Your task to perform on an android device: find photos in the google photos app Image 0: 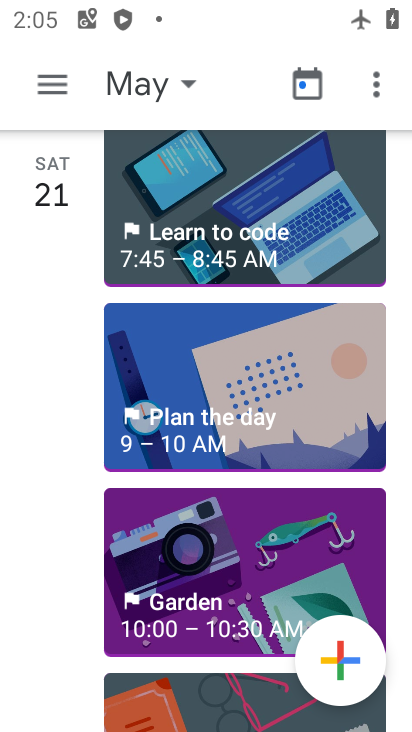
Step 0: press home button
Your task to perform on an android device: find photos in the google photos app Image 1: 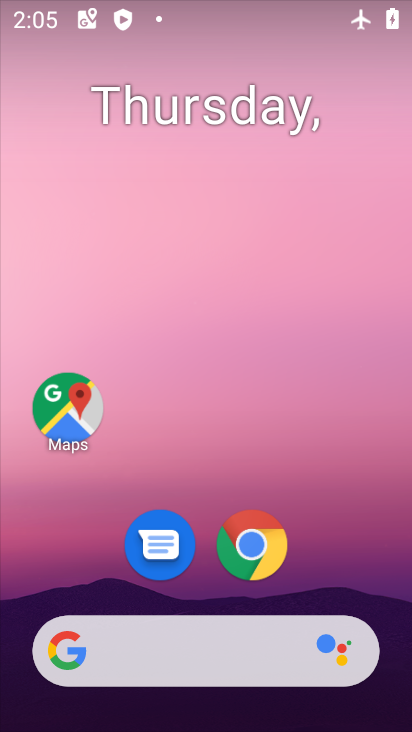
Step 1: drag from (94, 722) to (99, 153)
Your task to perform on an android device: find photos in the google photos app Image 2: 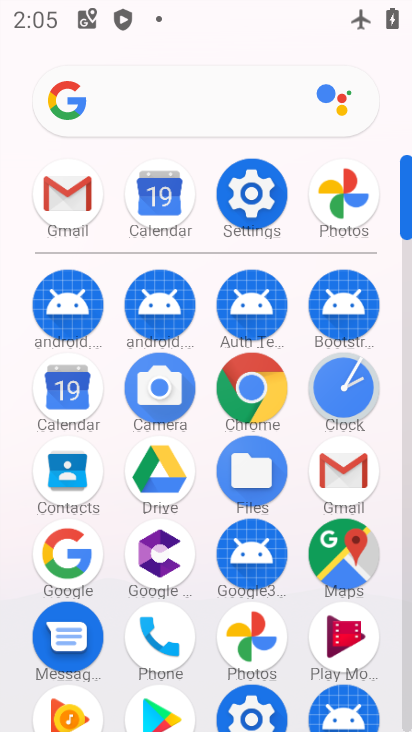
Step 2: click (259, 626)
Your task to perform on an android device: find photos in the google photos app Image 3: 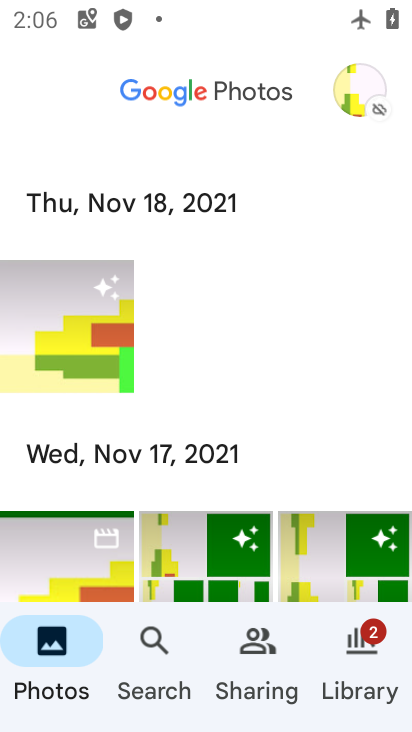
Step 3: task complete